Your task to perform on an android device: Empty the shopping cart on newegg. Search for "bose quietcomfort 35" on newegg, select the first entry, and add it to the cart. Image 0: 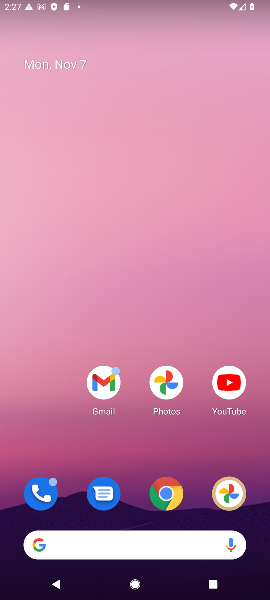
Step 0: drag from (138, 109) to (140, 31)
Your task to perform on an android device: Empty the shopping cart on newegg. Search for "bose quietcomfort 35" on newegg, select the first entry, and add it to the cart. Image 1: 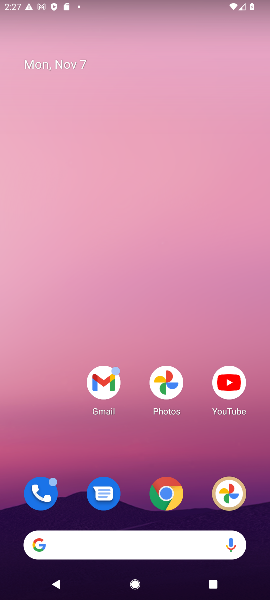
Step 1: drag from (135, 482) to (163, 65)
Your task to perform on an android device: Empty the shopping cart on newegg. Search for "bose quietcomfort 35" on newegg, select the first entry, and add it to the cart. Image 2: 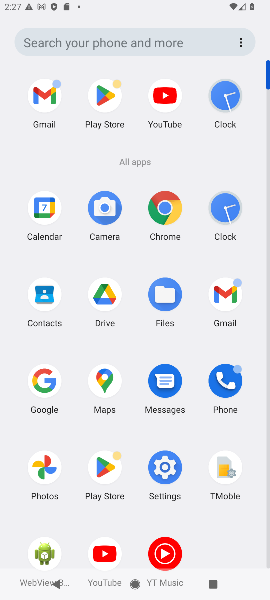
Step 2: click (163, 202)
Your task to perform on an android device: Empty the shopping cart on newegg. Search for "bose quietcomfort 35" on newegg, select the first entry, and add it to the cart. Image 3: 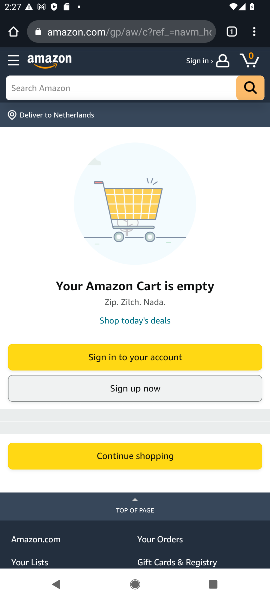
Step 3: click (86, 31)
Your task to perform on an android device: Empty the shopping cart on newegg. Search for "bose quietcomfort 35" on newegg, select the first entry, and add it to the cart. Image 4: 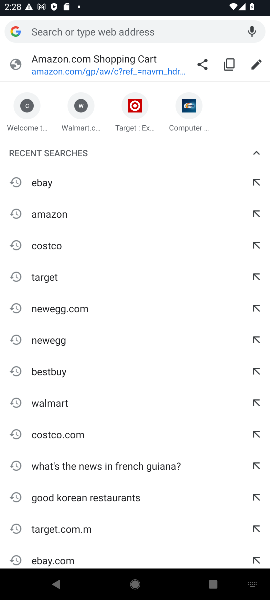
Step 4: click (73, 309)
Your task to perform on an android device: Empty the shopping cart on newegg. Search for "bose quietcomfort 35" on newegg, select the first entry, and add it to the cart. Image 5: 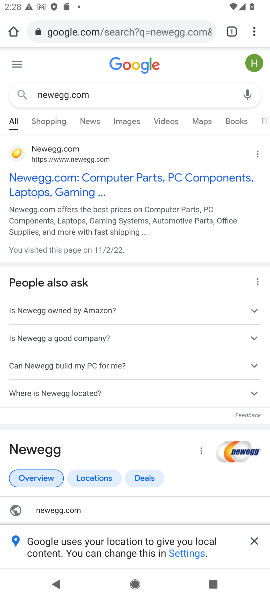
Step 5: click (67, 191)
Your task to perform on an android device: Empty the shopping cart on newegg. Search for "bose quietcomfort 35" on newegg, select the first entry, and add it to the cart. Image 6: 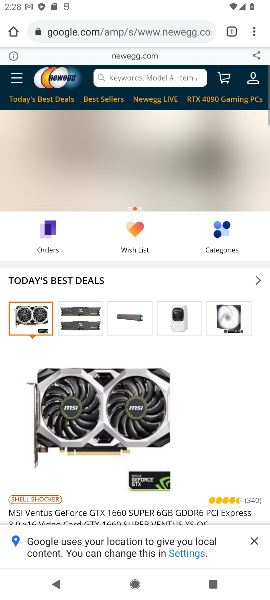
Step 6: click (124, 73)
Your task to perform on an android device: Empty the shopping cart on newegg. Search for "bose quietcomfort 35" on newegg, select the first entry, and add it to the cart. Image 7: 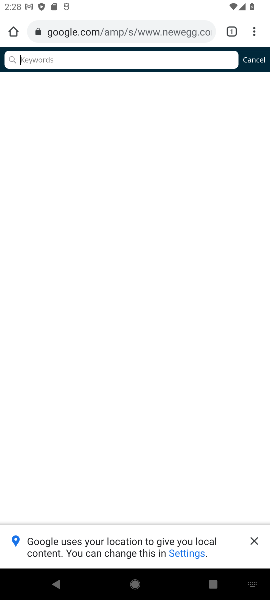
Step 7: type "bose quietcomfort 35"
Your task to perform on an android device: Empty the shopping cart on newegg. Search for "bose quietcomfort 35" on newegg, select the first entry, and add it to the cart. Image 8: 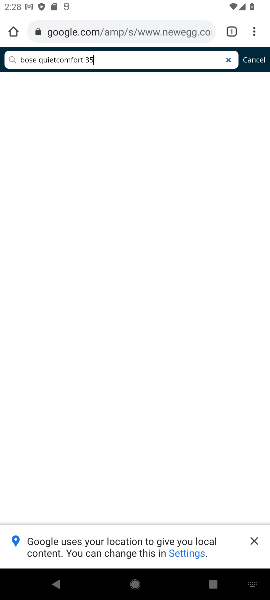
Step 8: click (254, 542)
Your task to perform on an android device: Empty the shopping cart on newegg. Search for "bose quietcomfort 35" on newegg, select the first entry, and add it to the cart. Image 9: 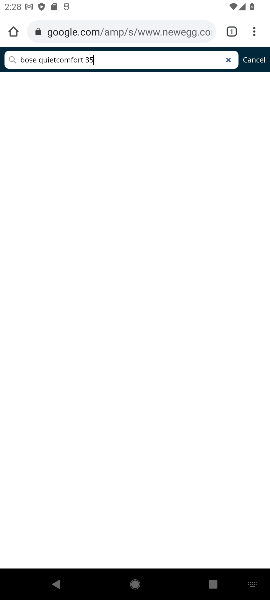
Step 9: task complete